Your task to perform on an android device: Search for a dining table on crateandbarrel.com Image 0: 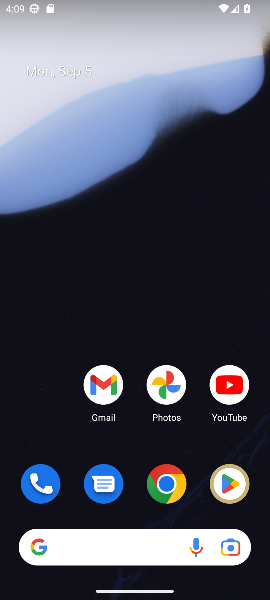
Step 0: click (173, 485)
Your task to perform on an android device: Search for a dining table on crateandbarrel.com Image 1: 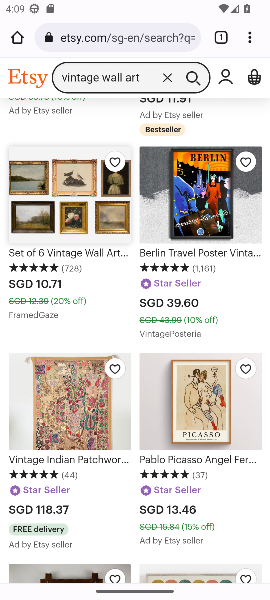
Step 1: click (152, 34)
Your task to perform on an android device: Search for a dining table on crateandbarrel.com Image 2: 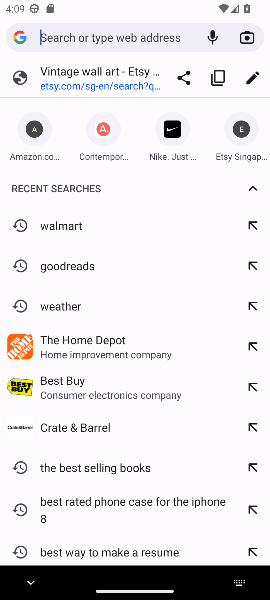
Step 2: type "crateandbarrel.com"
Your task to perform on an android device: Search for a dining table on crateandbarrel.com Image 3: 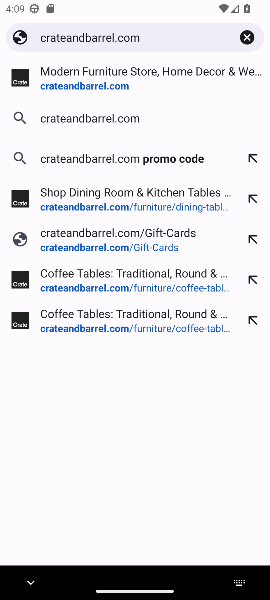
Step 3: click (72, 121)
Your task to perform on an android device: Search for a dining table on crateandbarrel.com Image 4: 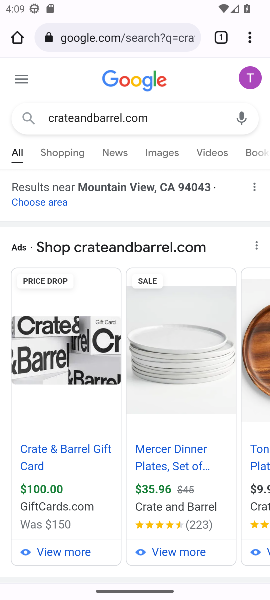
Step 4: drag from (104, 439) to (168, 178)
Your task to perform on an android device: Search for a dining table on crateandbarrel.com Image 5: 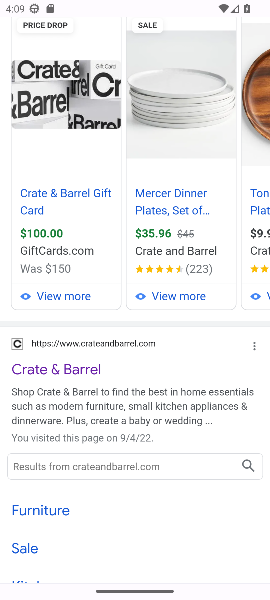
Step 5: click (84, 375)
Your task to perform on an android device: Search for a dining table on crateandbarrel.com Image 6: 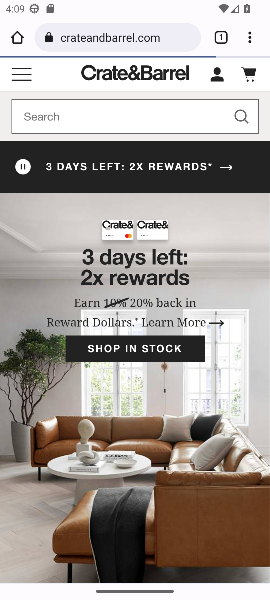
Step 6: click (74, 115)
Your task to perform on an android device: Search for a dining table on crateandbarrel.com Image 7: 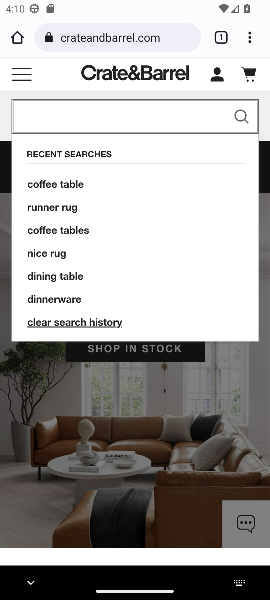
Step 7: press enter
Your task to perform on an android device: Search for a dining table on crateandbarrel.com Image 8: 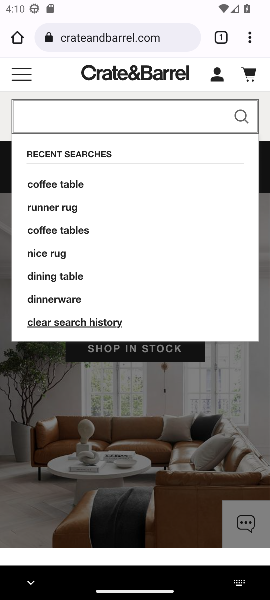
Step 8: type " dining table "
Your task to perform on an android device: Search for a dining table on crateandbarrel.com Image 9: 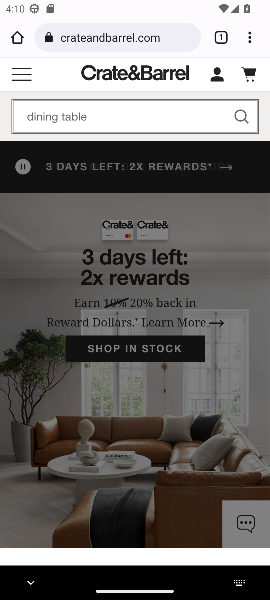
Step 9: click (238, 115)
Your task to perform on an android device: Search for a dining table on crateandbarrel.com Image 10: 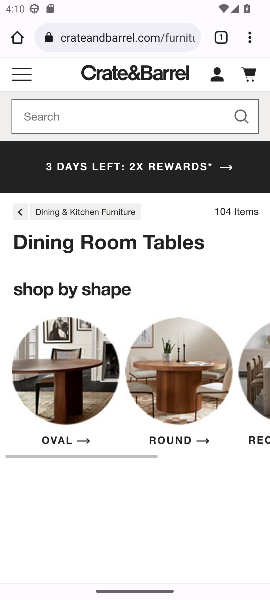
Step 10: drag from (167, 492) to (219, 205)
Your task to perform on an android device: Search for a dining table on crateandbarrel.com Image 11: 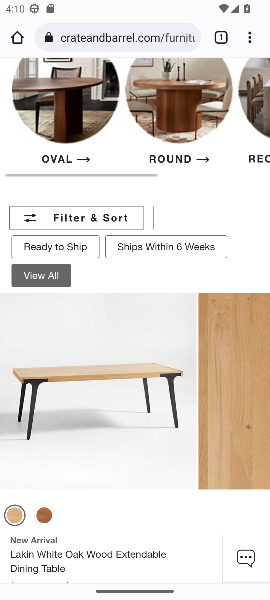
Step 11: drag from (161, 527) to (229, 224)
Your task to perform on an android device: Search for a dining table on crateandbarrel.com Image 12: 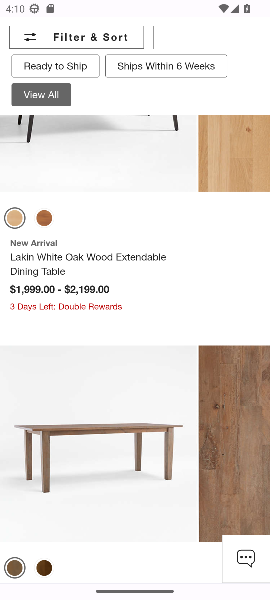
Step 12: drag from (133, 534) to (235, 236)
Your task to perform on an android device: Search for a dining table on crateandbarrel.com Image 13: 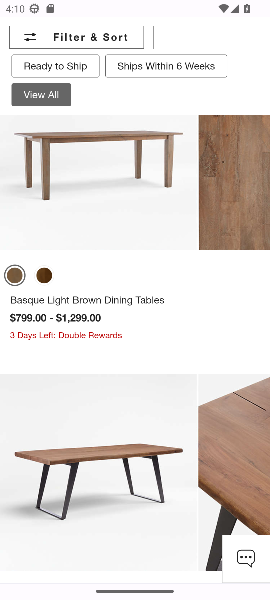
Step 13: drag from (124, 555) to (208, 192)
Your task to perform on an android device: Search for a dining table on crateandbarrel.com Image 14: 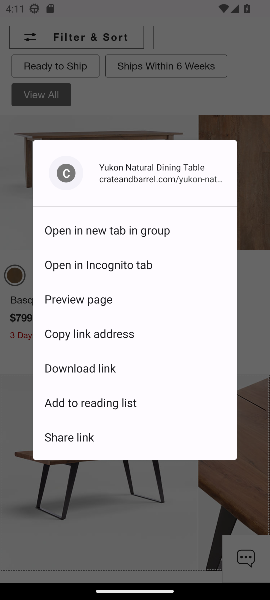
Step 14: click (142, 547)
Your task to perform on an android device: Search for a dining table on crateandbarrel.com Image 15: 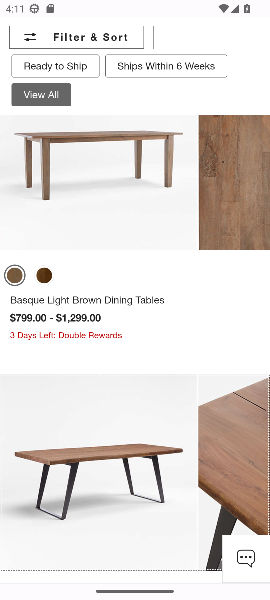
Step 15: task complete